Your task to perform on an android device: turn on data saver in the chrome app Image 0: 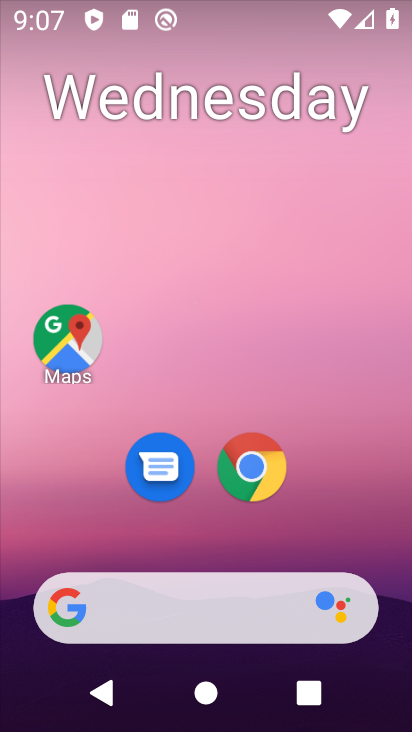
Step 0: click (252, 472)
Your task to perform on an android device: turn on data saver in the chrome app Image 1: 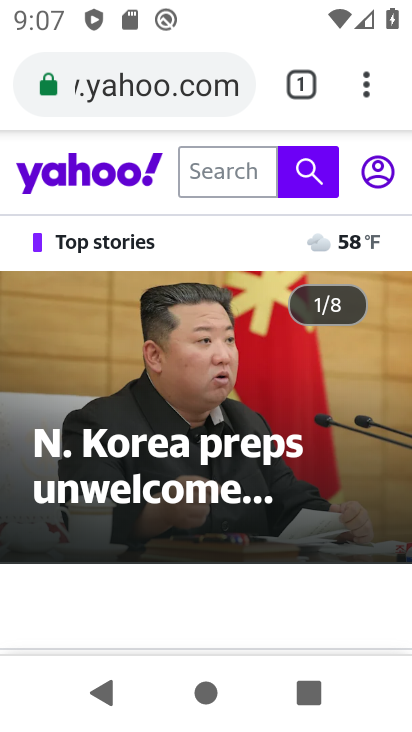
Step 1: click (371, 78)
Your task to perform on an android device: turn on data saver in the chrome app Image 2: 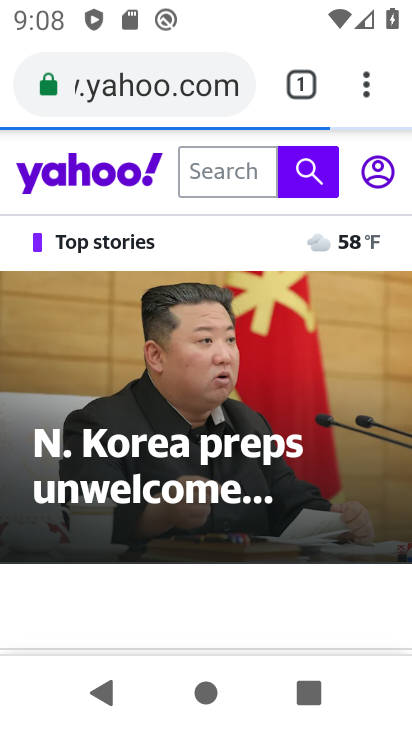
Step 2: click (372, 89)
Your task to perform on an android device: turn on data saver in the chrome app Image 3: 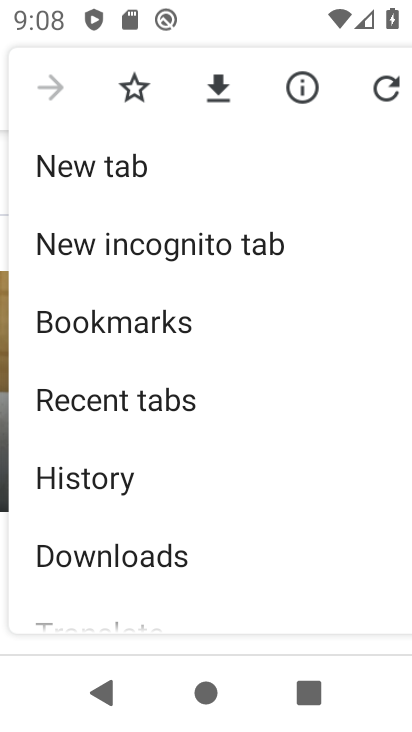
Step 3: drag from (225, 573) to (201, 175)
Your task to perform on an android device: turn on data saver in the chrome app Image 4: 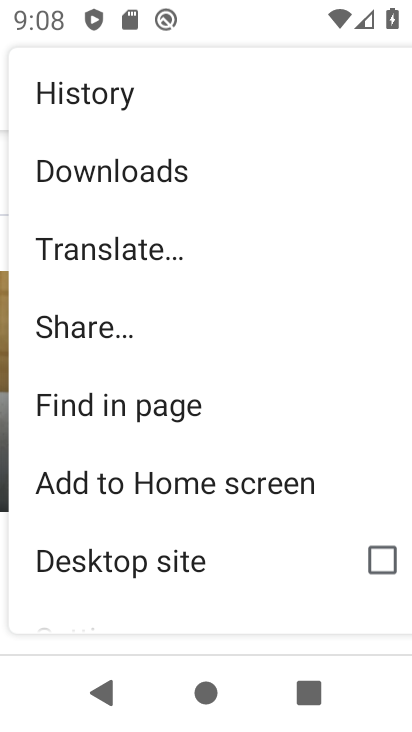
Step 4: drag from (209, 563) to (206, 160)
Your task to perform on an android device: turn on data saver in the chrome app Image 5: 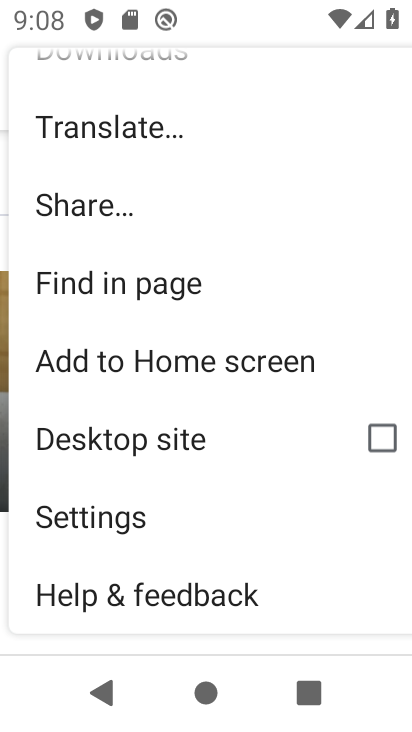
Step 5: click (131, 519)
Your task to perform on an android device: turn on data saver in the chrome app Image 6: 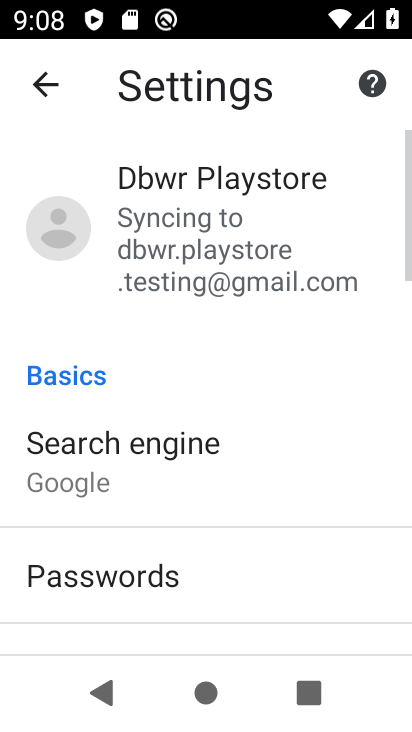
Step 6: drag from (211, 571) to (245, 151)
Your task to perform on an android device: turn on data saver in the chrome app Image 7: 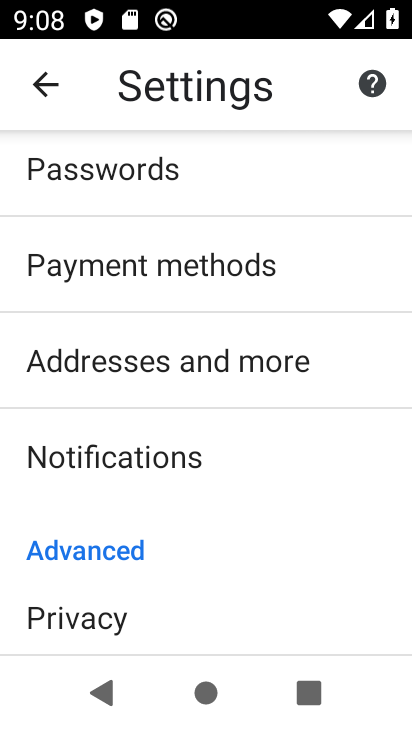
Step 7: drag from (204, 566) to (221, 196)
Your task to perform on an android device: turn on data saver in the chrome app Image 8: 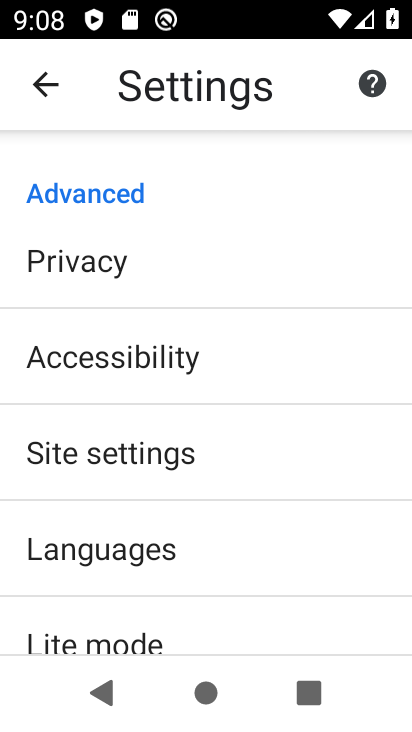
Step 8: click (188, 629)
Your task to perform on an android device: turn on data saver in the chrome app Image 9: 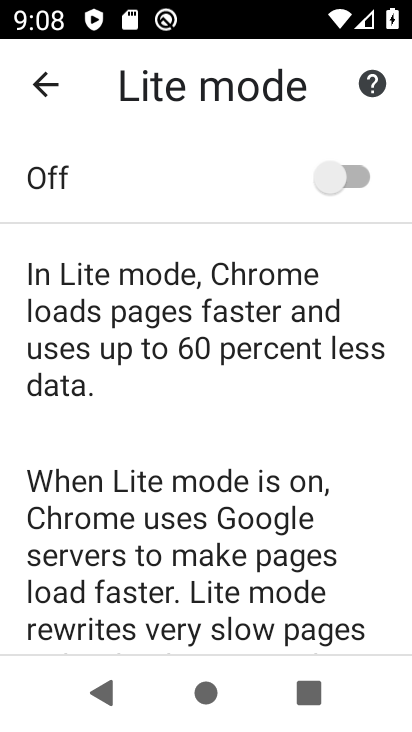
Step 9: click (325, 175)
Your task to perform on an android device: turn on data saver in the chrome app Image 10: 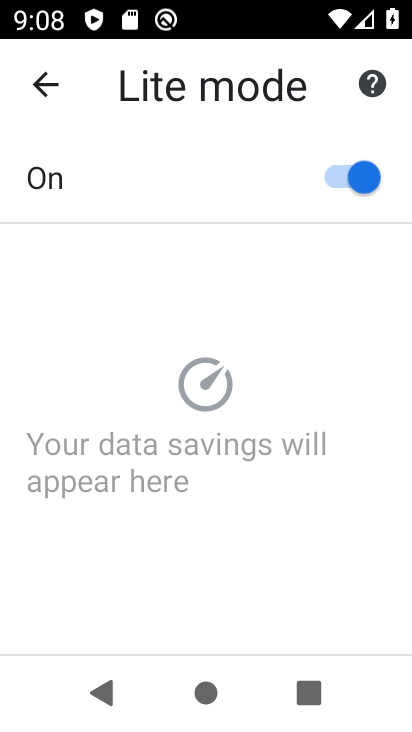
Step 10: task complete